Your task to perform on an android device: Check the settings for the Google Chrome app Image 0: 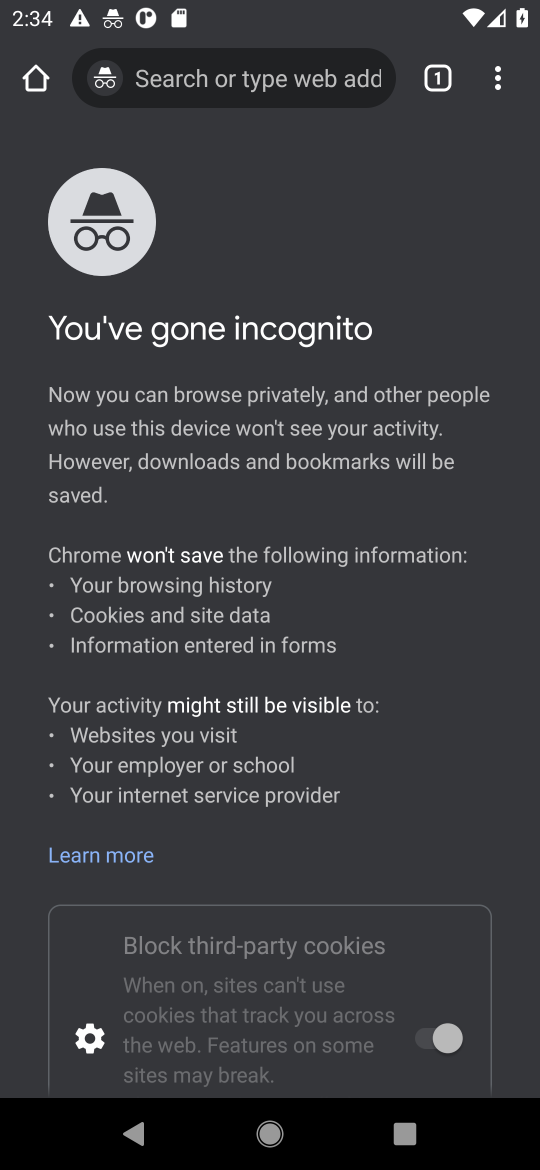
Step 0: task complete